Your task to perform on an android device: Add "asus zenbook" to the cart on walmart Image 0: 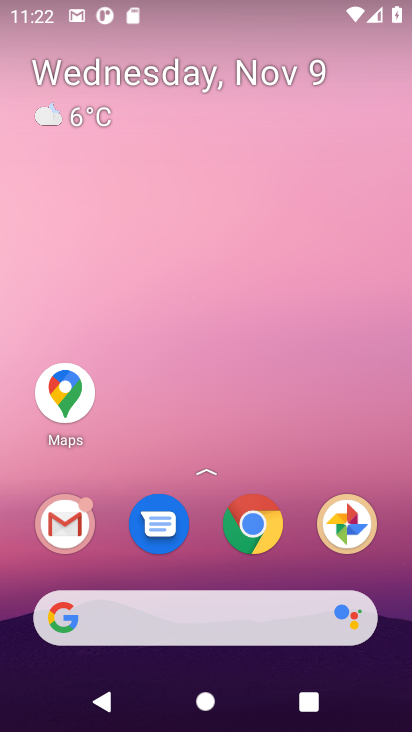
Step 0: click (217, 619)
Your task to perform on an android device: Add "asus zenbook" to the cart on walmart Image 1: 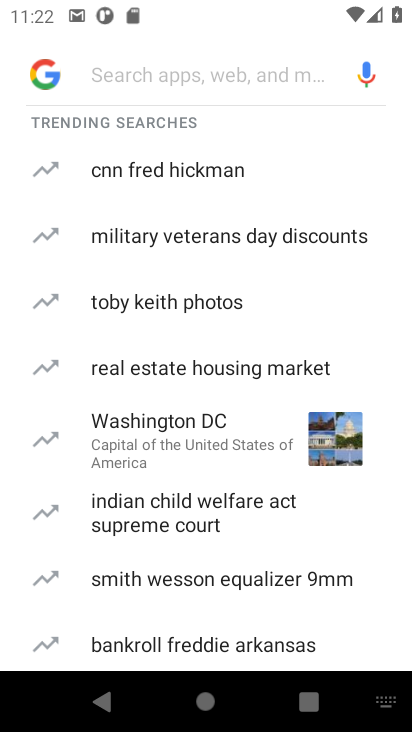
Step 1: type "asus zenbook on walmart"
Your task to perform on an android device: Add "asus zenbook" to the cart on walmart Image 2: 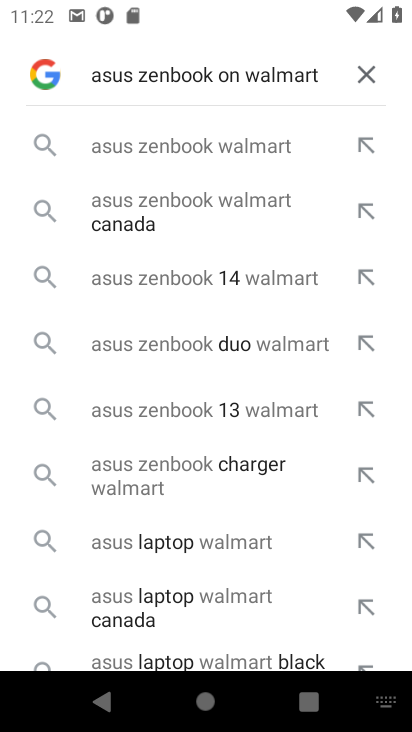
Step 2: click (140, 145)
Your task to perform on an android device: Add "asus zenbook" to the cart on walmart Image 3: 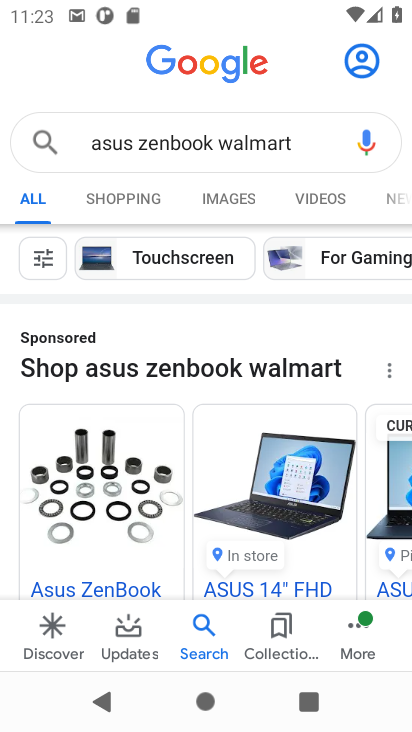
Step 3: drag from (124, 533) to (197, 255)
Your task to perform on an android device: Add "asus zenbook" to the cart on walmart Image 4: 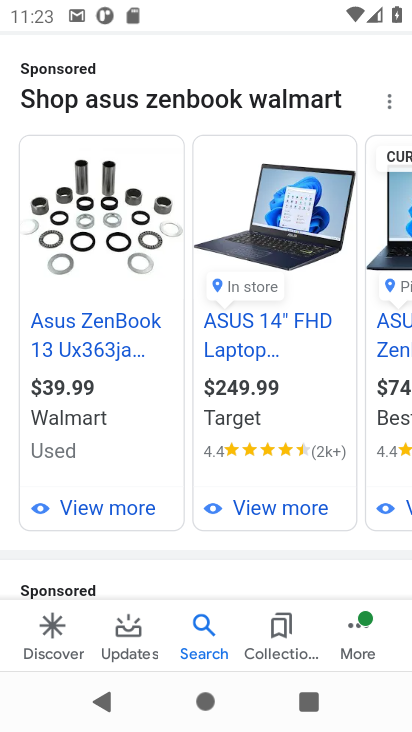
Step 4: click (78, 330)
Your task to perform on an android device: Add "asus zenbook" to the cart on walmart Image 5: 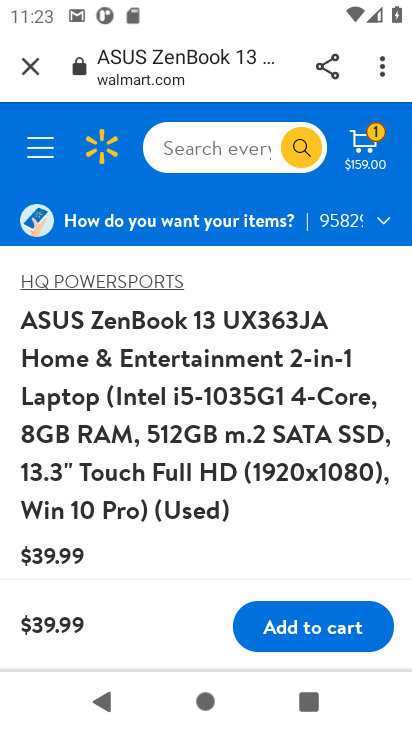
Step 5: click (285, 635)
Your task to perform on an android device: Add "asus zenbook" to the cart on walmart Image 6: 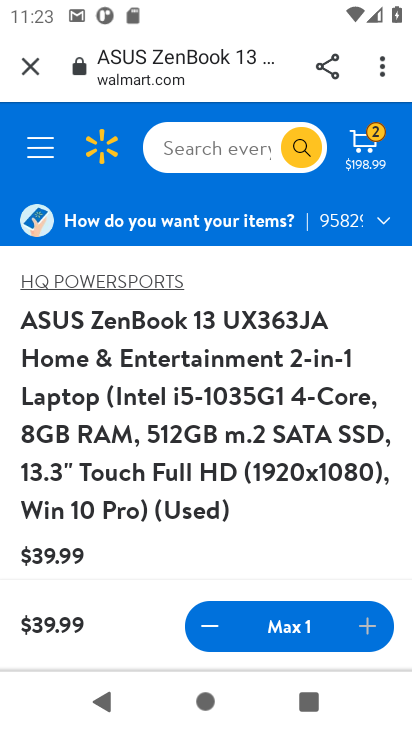
Step 6: task complete